Your task to perform on an android device: Open the Play Movies app and select the watchlist tab. Image 0: 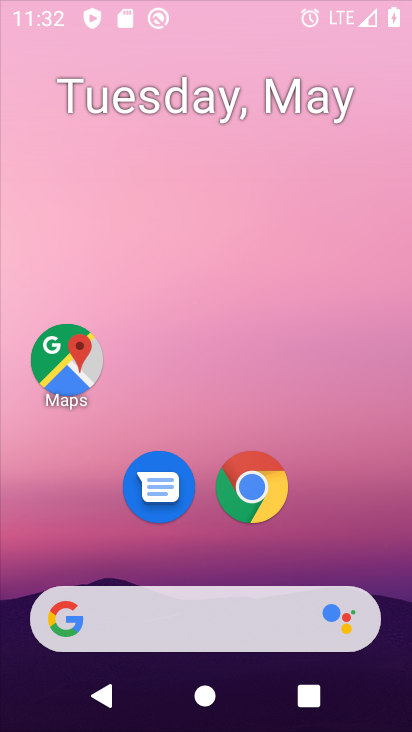
Step 0: drag from (235, 594) to (231, 302)
Your task to perform on an android device: Open the Play Movies app and select the watchlist tab. Image 1: 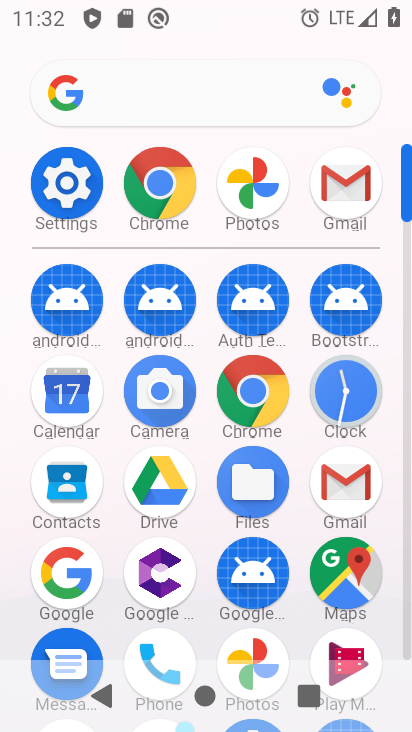
Step 1: click (349, 640)
Your task to perform on an android device: Open the Play Movies app and select the watchlist tab. Image 2: 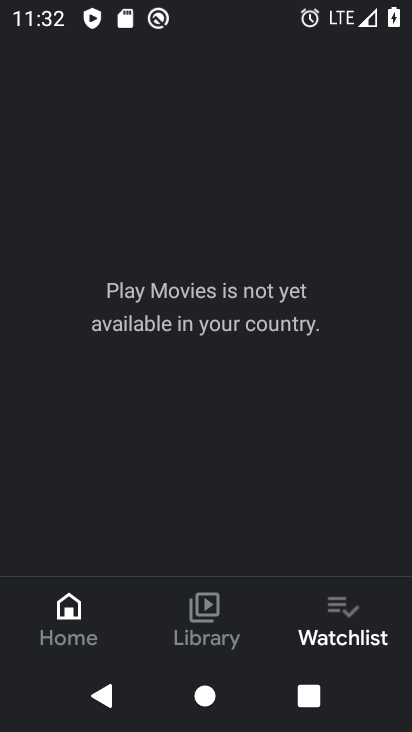
Step 2: click (320, 619)
Your task to perform on an android device: Open the Play Movies app and select the watchlist tab. Image 3: 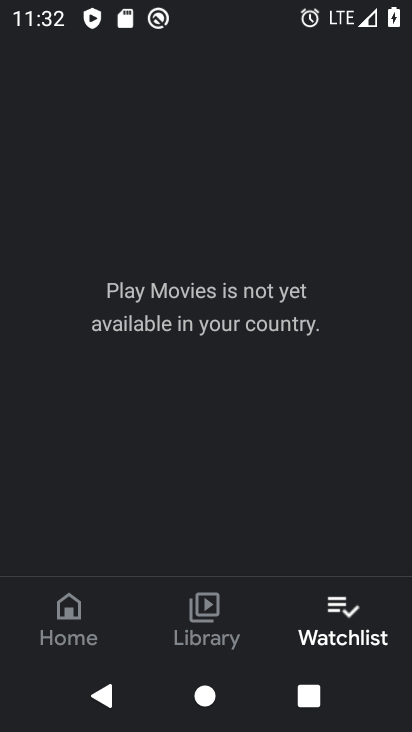
Step 3: task complete